Your task to perform on an android device: change the clock style Image 0: 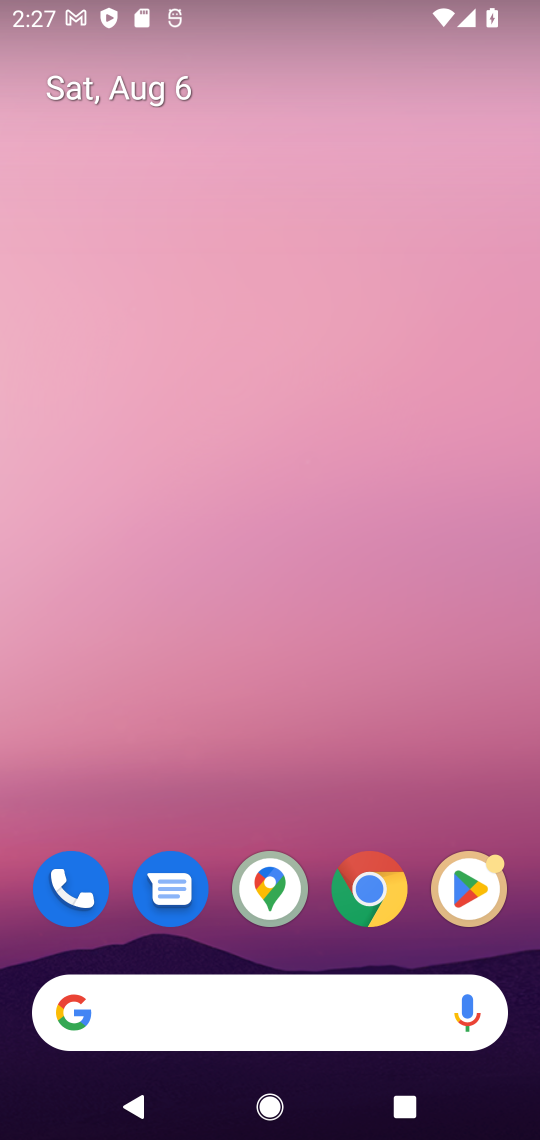
Step 0: click (369, 47)
Your task to perform on an android device: change the clock style Image 1: 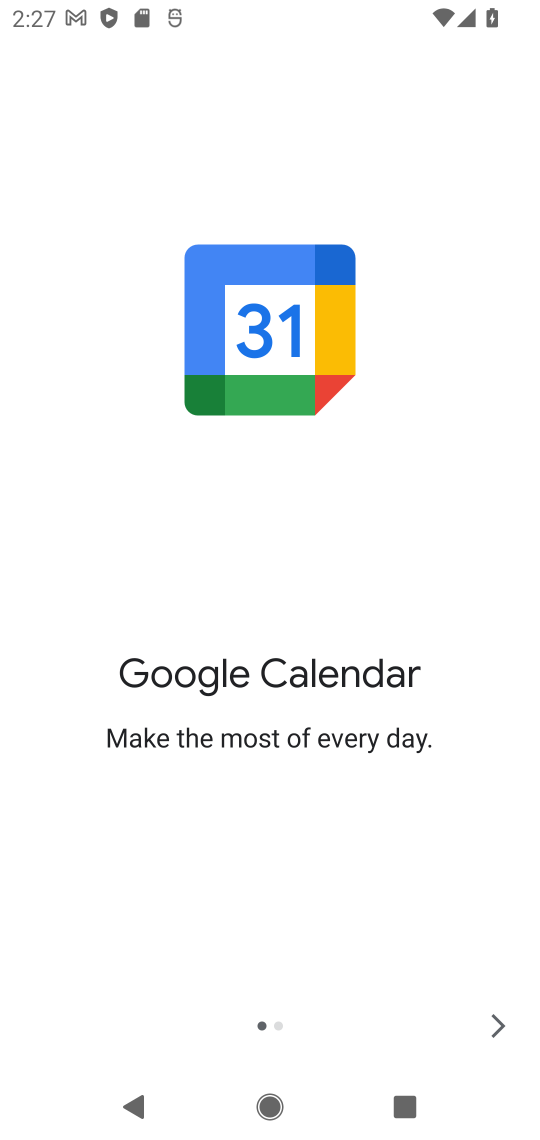
Step 1: drag from (255, 795) to (344, 316)
Your task to perform on an android device: change the clock style Image 2: 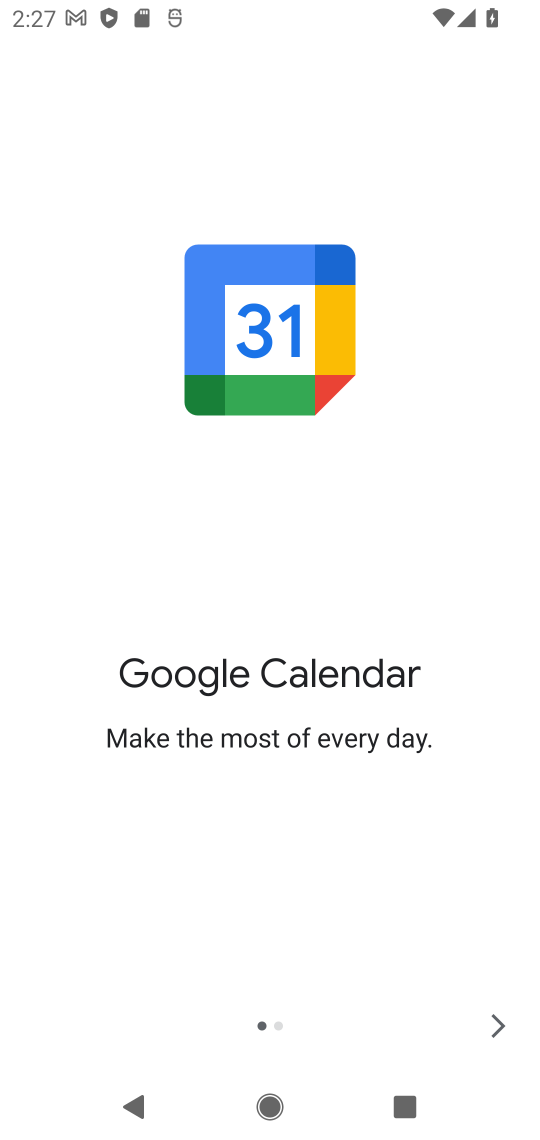
Step 2: drag from (359, 834) to (298, 426)
Your task to perform on an android device: change the clock style Image 3: 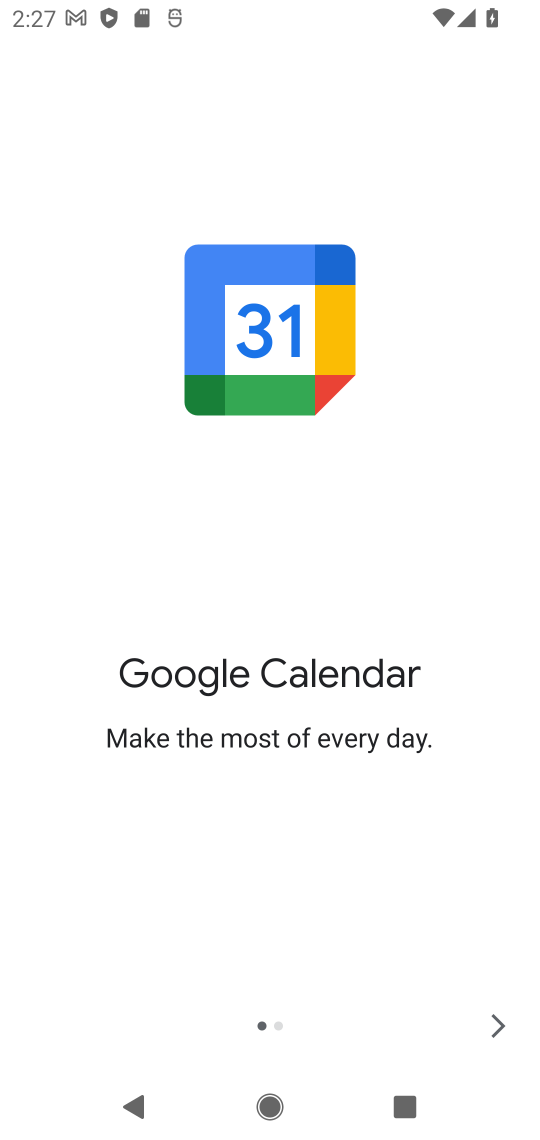
Step 3: click (498, 1022)
Your task to perform on an android device: change the clock style Image 4: 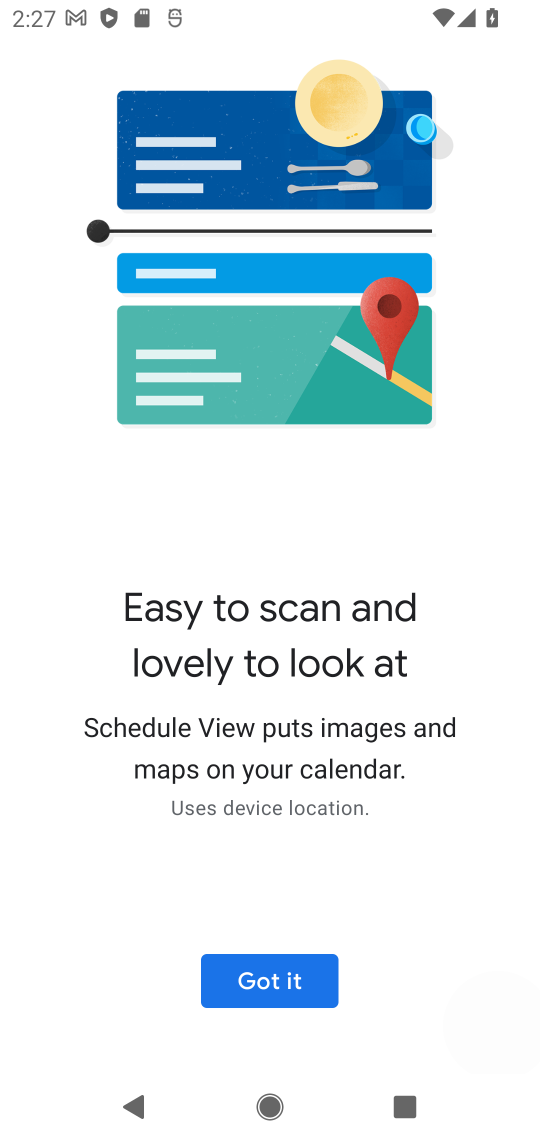
Step 4: press home button
Your task to perform on an android device: change the clock style Image 5: 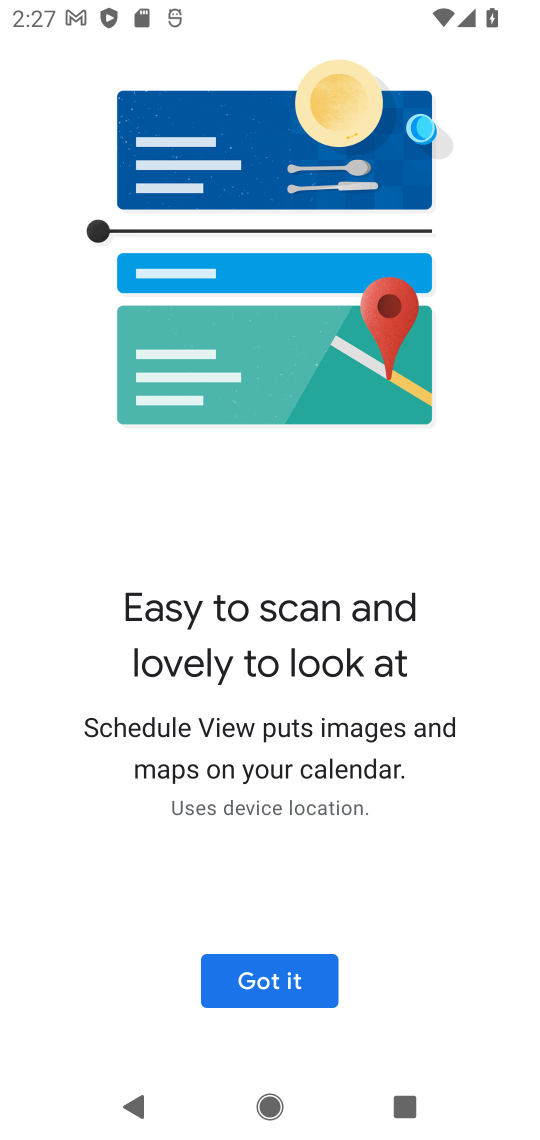
Step 5: press home button
Your task to perform on an android device: change the clock style Image 6: 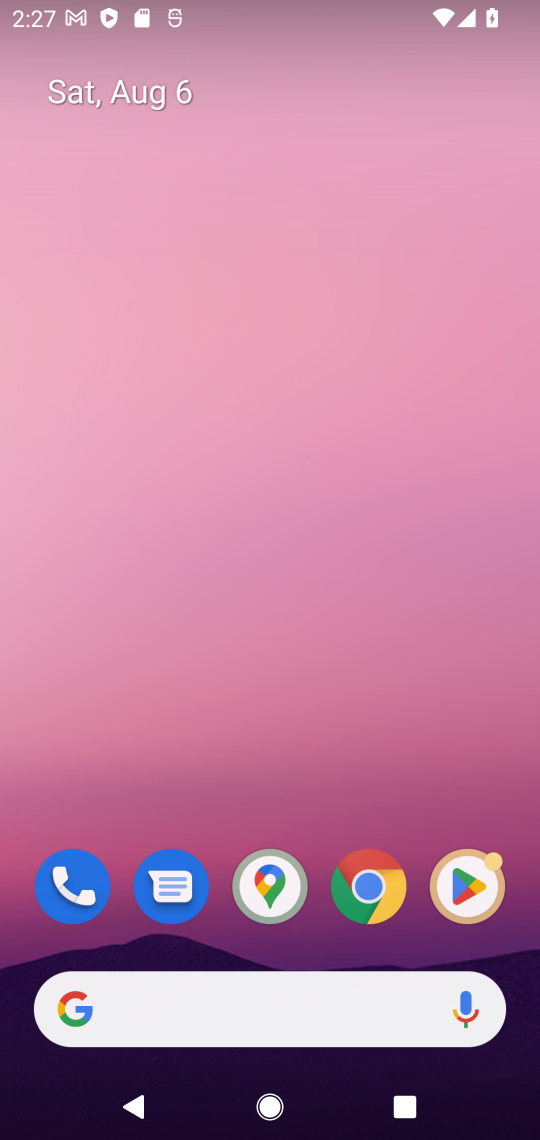
Step 6: drag from (294, 723) to (322, 260)
Your task to perform on an android device: change the clock style Image 7: 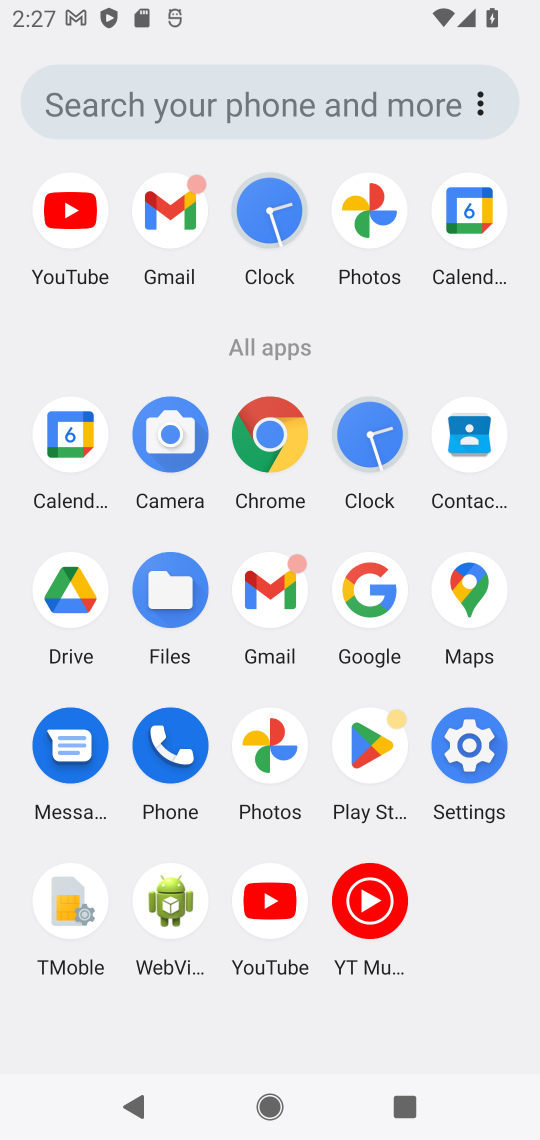
Step 7: click (363, 463)
Your task to perform on an android device: change the clock style Image 8: 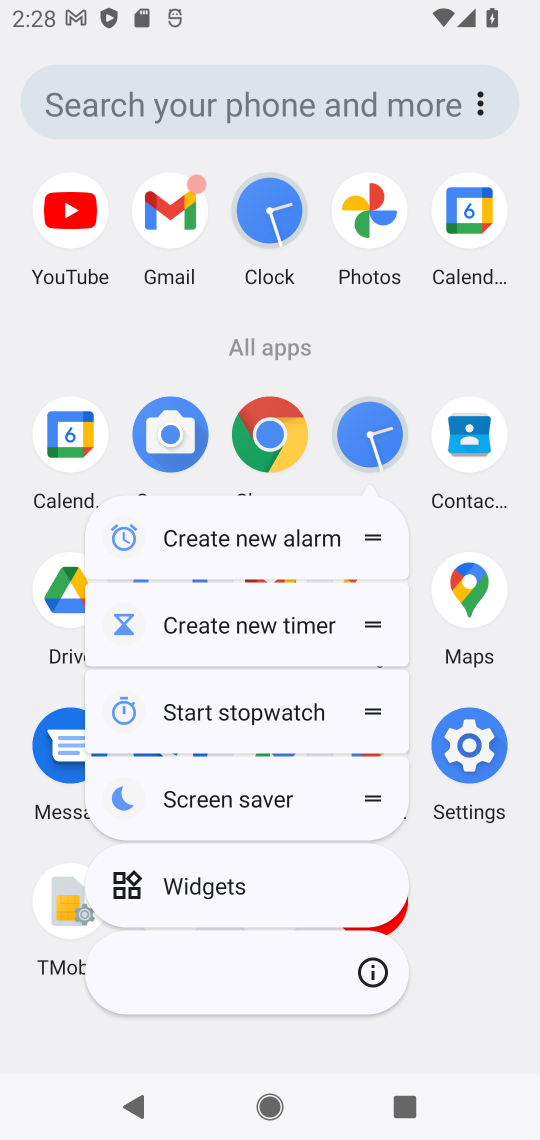
Step 8: click (356, 994)
Your task to perform on an android device: change the clock style Image 9: 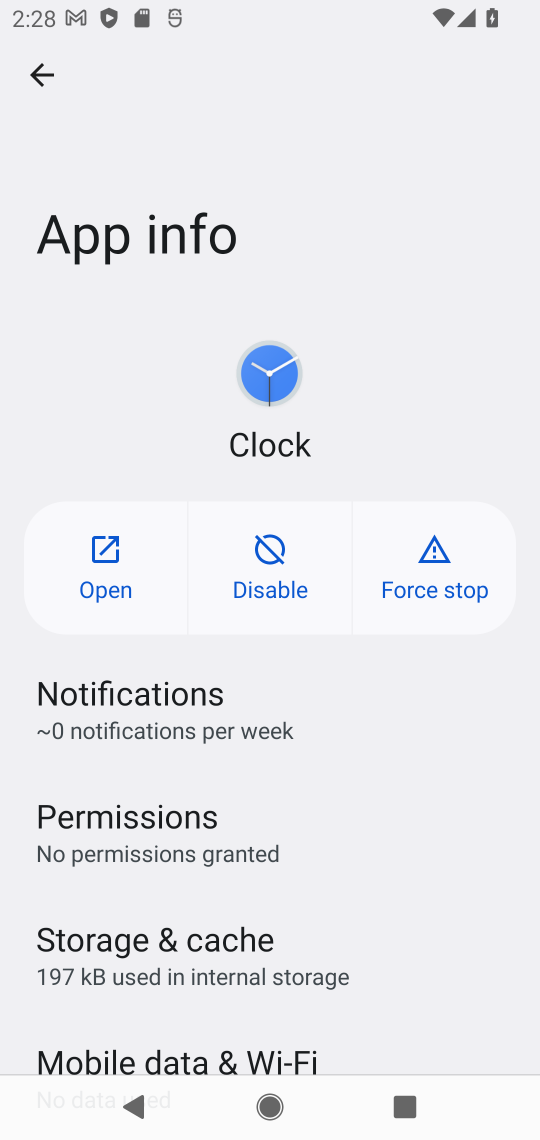
Step 9: click (120, 571)
Your task to perform on an android device: change the clock style Image 10: 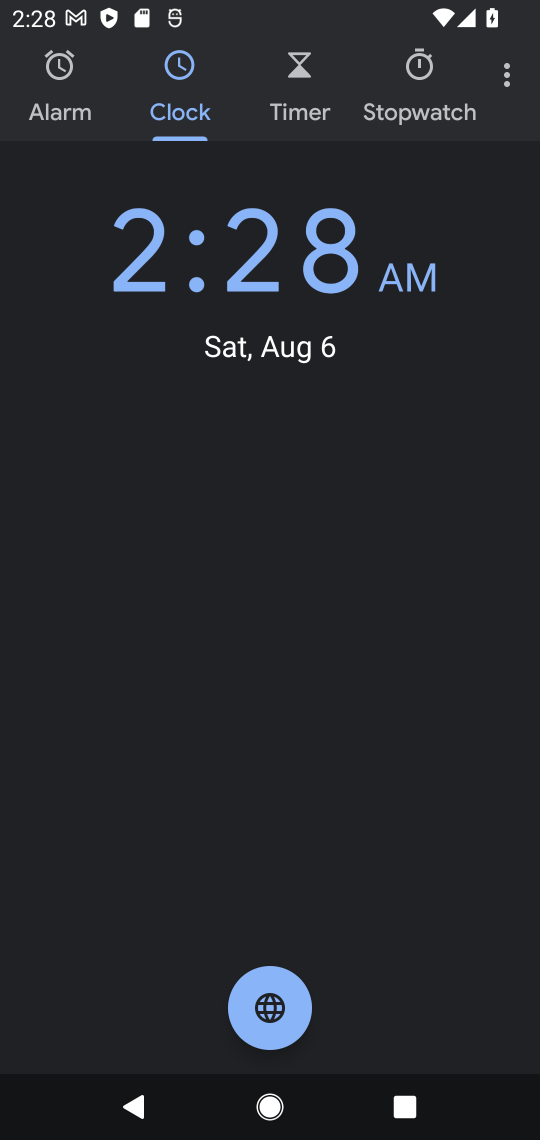
Step 10: drag from (284, 772) to (265, 33)
Your task to perform on an android device: change the clock style Image 11: 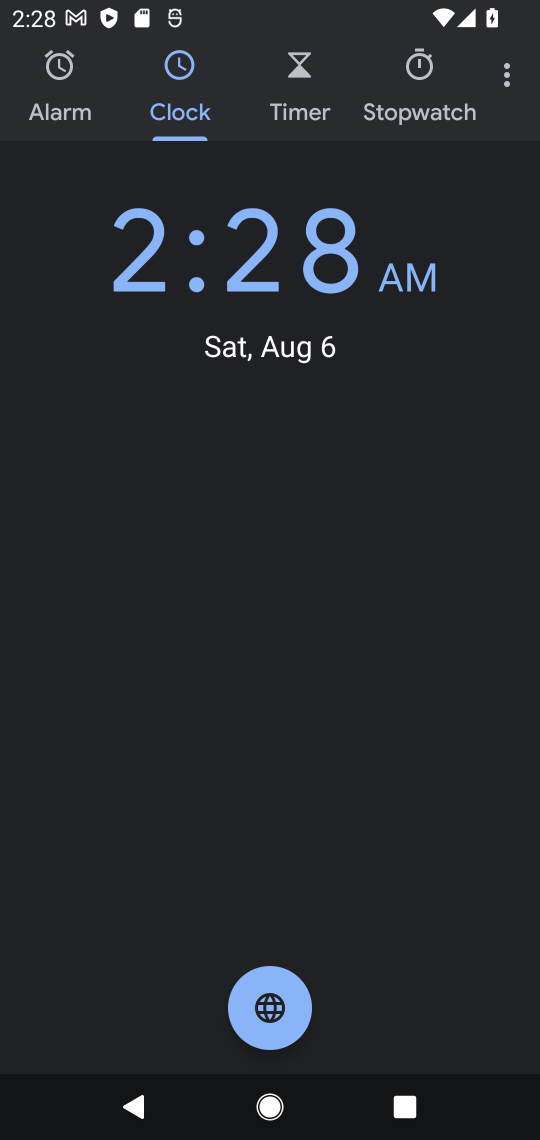
Step 11: click (508, 77)
Your task to perform on an android device: change the clock style Image 12: 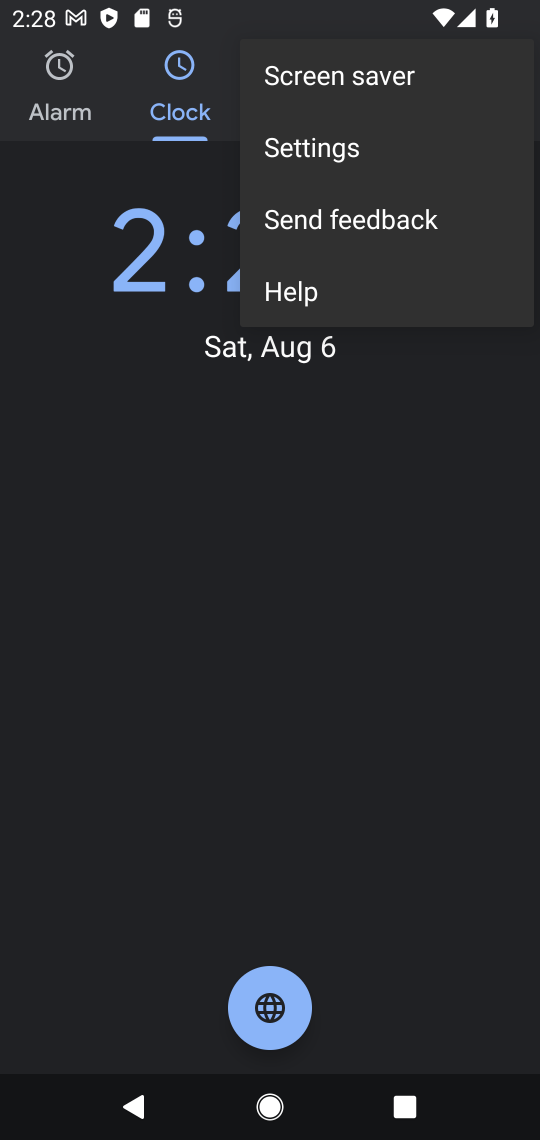
Step 12: click (381, 153)
Your task to perform on an android device: change the clock style Image 13: 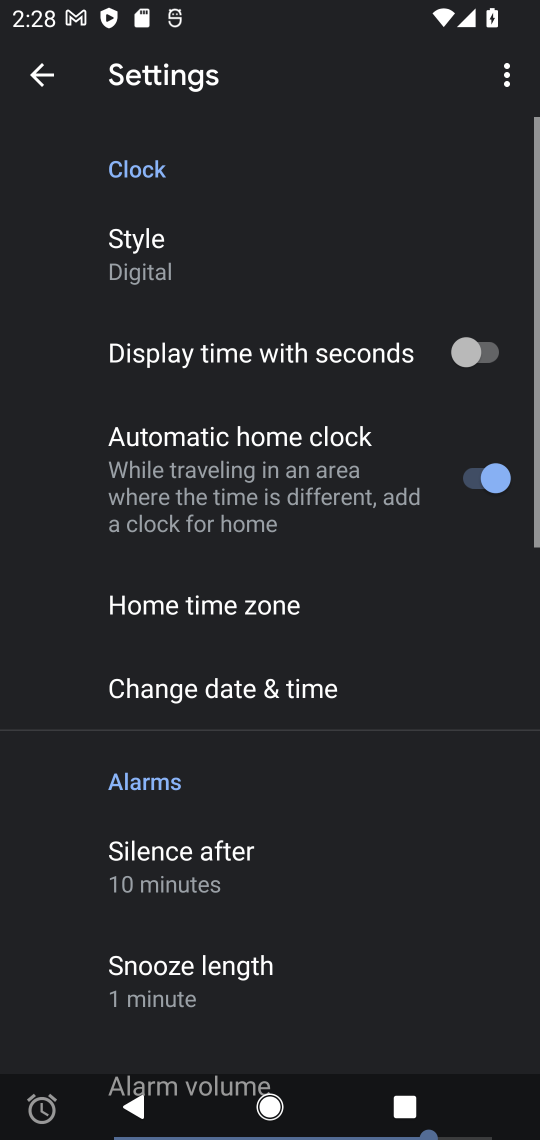
Step 13: drag from (396, 596) to (360, 1132)
Your task to perform on an android device: change the clock style Image 14: 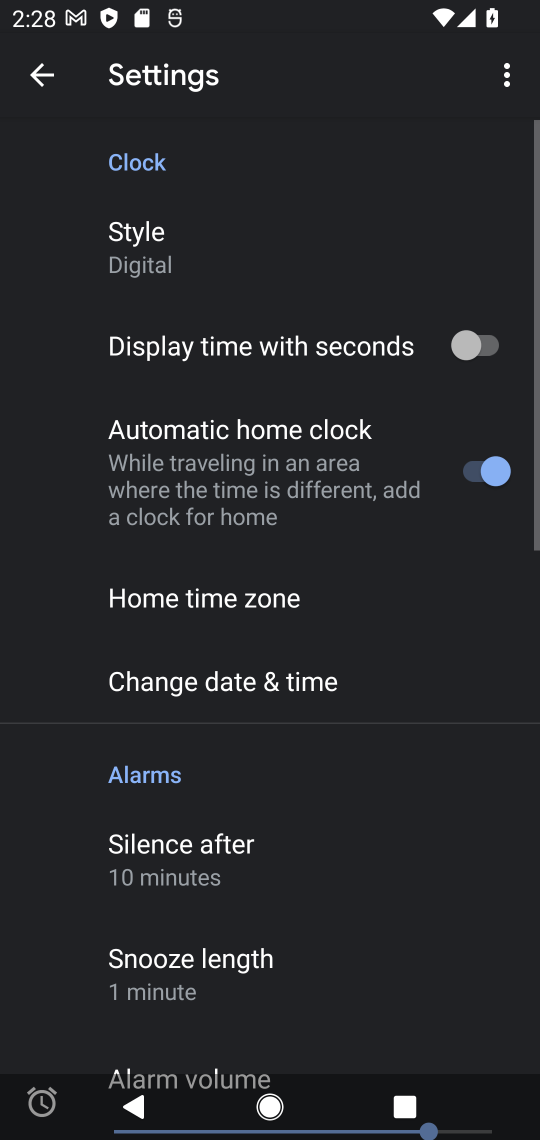
Step 14: click (155, 273)
Your task to perform on an android device: change the clock style Image 15: 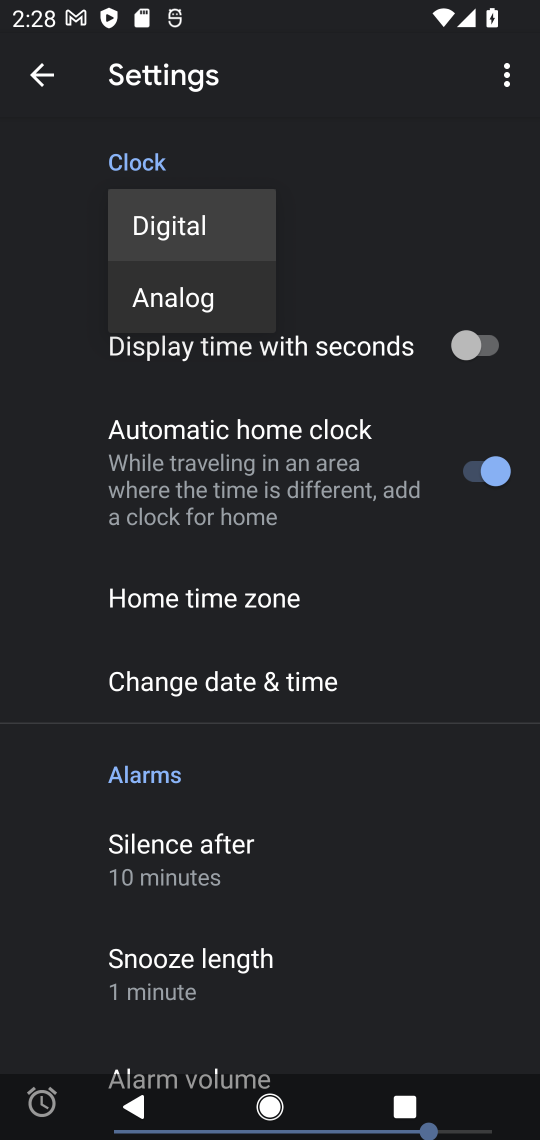
Step 15: click (177, 318)
Your task to perform on an android device: change the clock style Image 16: 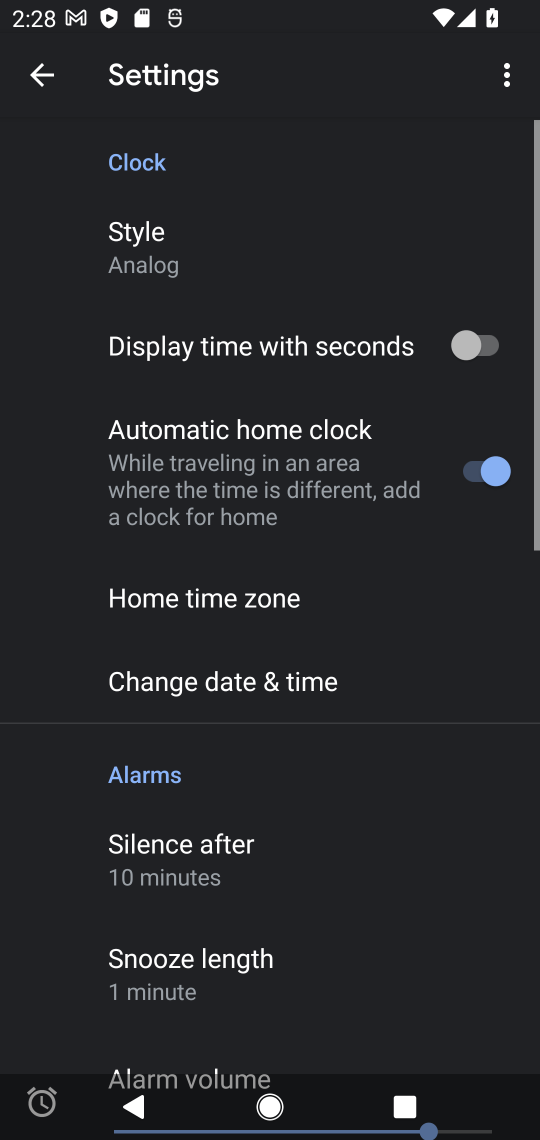
Step 16: task complete